Your task to perform on an android device: Open Google Maps Image 0: 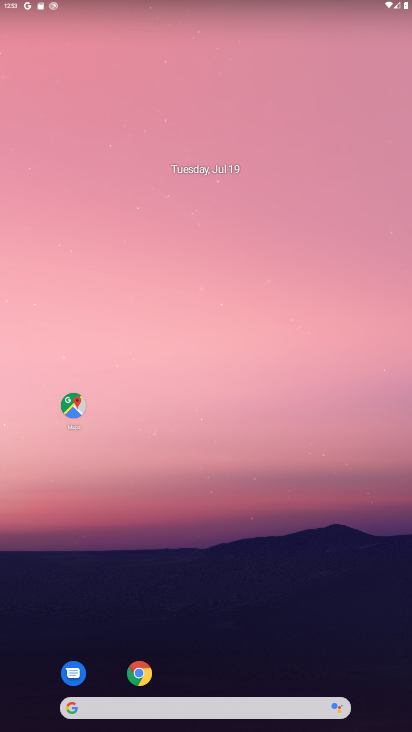
Step 0: click (75, 394)
Your task to perform on an android device: Open Google Maps Image 1: 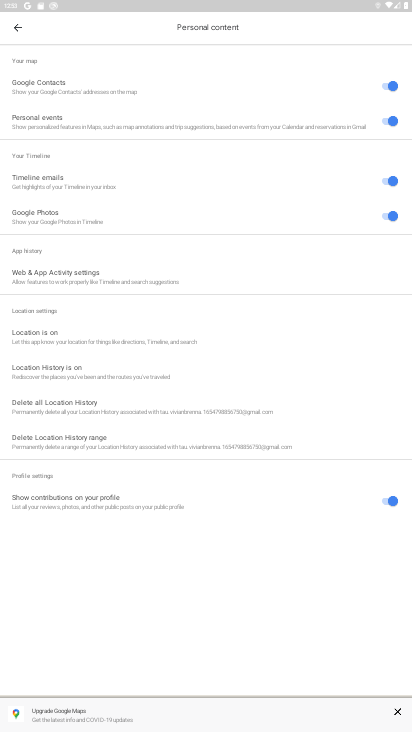
Step 1: task complete